Your task to perform on an android device: Search for pizza restaurants on Maps Image 0: 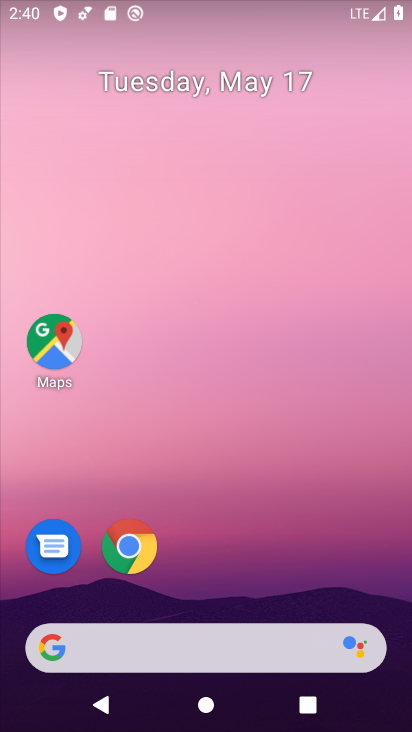
Step 0: press home button
Your task to perform on an android device: Search for pizza restaurants on Maps Image 1: 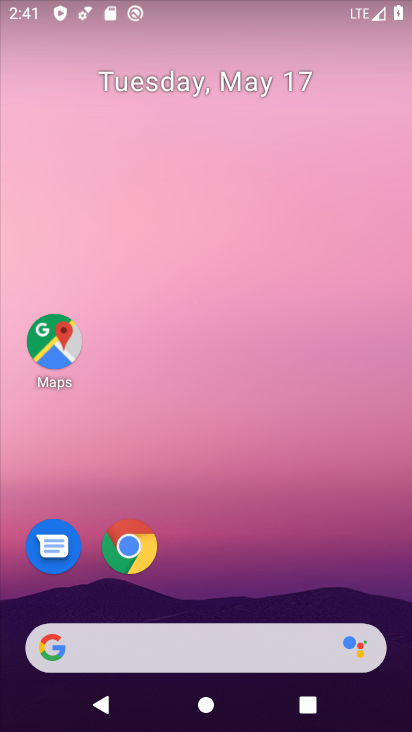
Step 1: click (139, 562)
Your task to perform on an android device: Search for pizza restaurants on Maps Image 2: 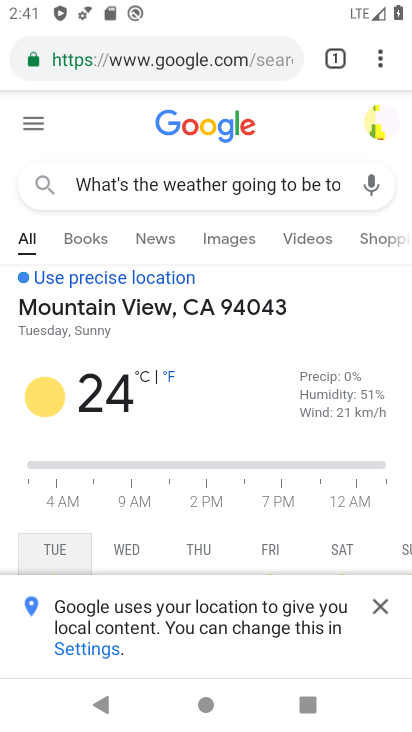
Step 2: click (205, 53)
Your task to perform on an android device: Search for pizza restaurants on Maps Image 3: 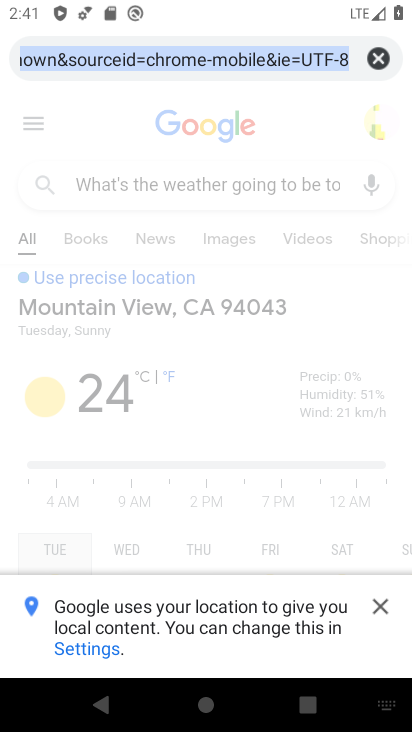
Step 3: click (374, 60)
Your task to perform on an android device: Search for pizza restaurants on Maps Image 4: 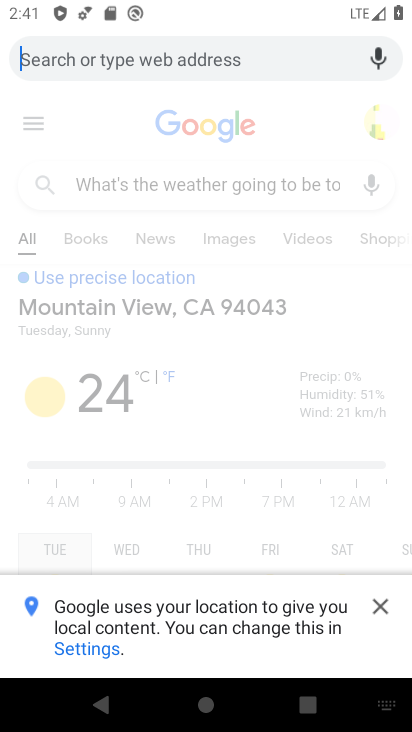
Step 4: type "pizza restaurants"
Your task to perform on an android device: Search for pizza restaurants on Maps Image 5: 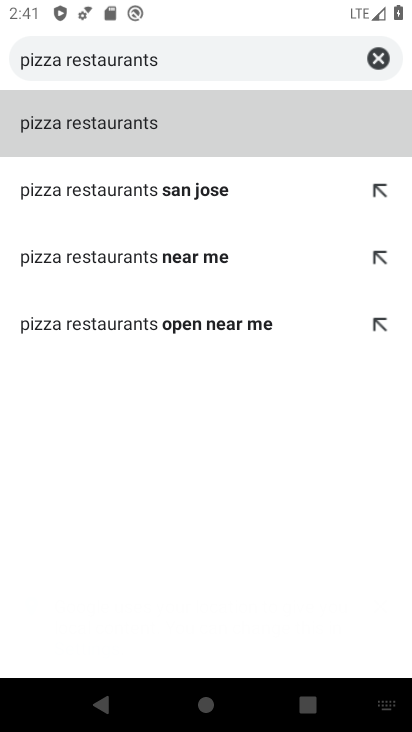
Step 5: click (270, 116)
Your task to perform on an android device: Search for pizza restaurants on Maps Image 6: 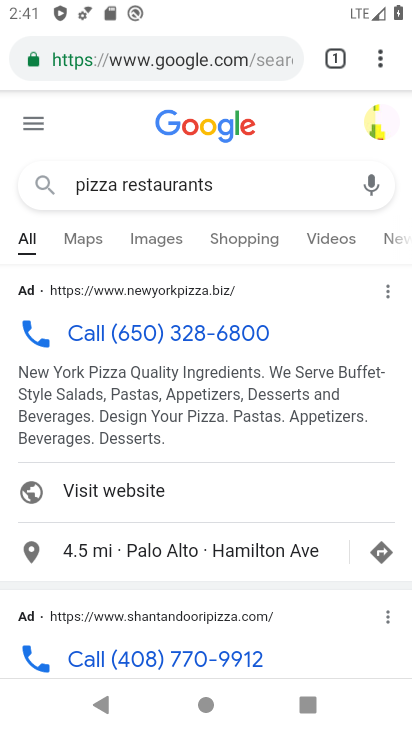
Step 6: press home button
Your task to perform on an android device: Search for pizza restaurants on Maps Image 7: 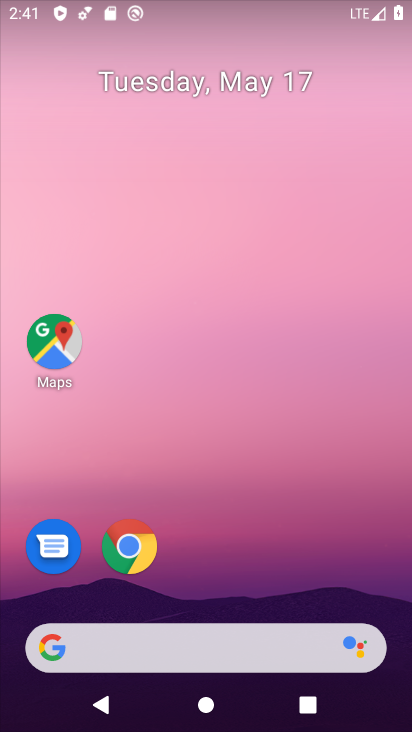
Step 7: click (45, 334)
Your task to perform on an android device: Search for pizza restaurants on Maps Image 8: 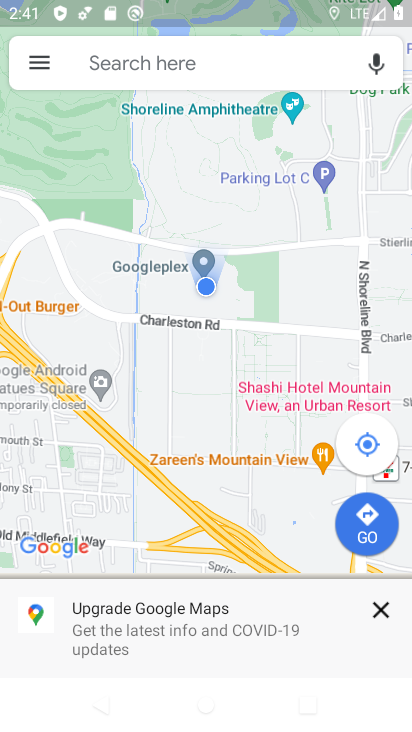
Step 8: click (119, 54)
Your task to perform on an android device: Search for pizza restaurants on Maps Image 9: 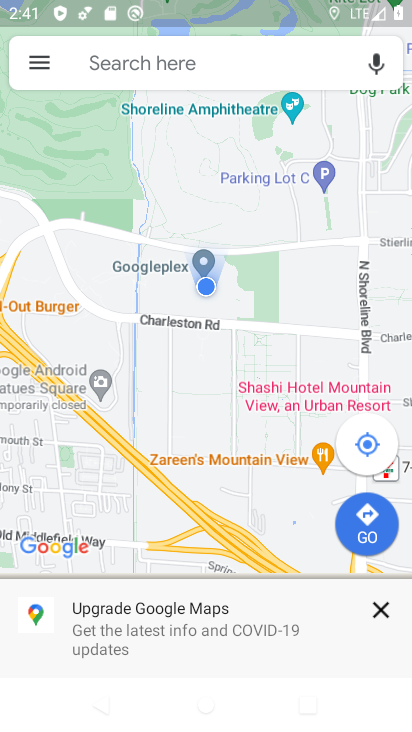
Step 9: click (119, 54)
Your task to perform on an android device: Search for pizza restaurants on Maps Image 10: 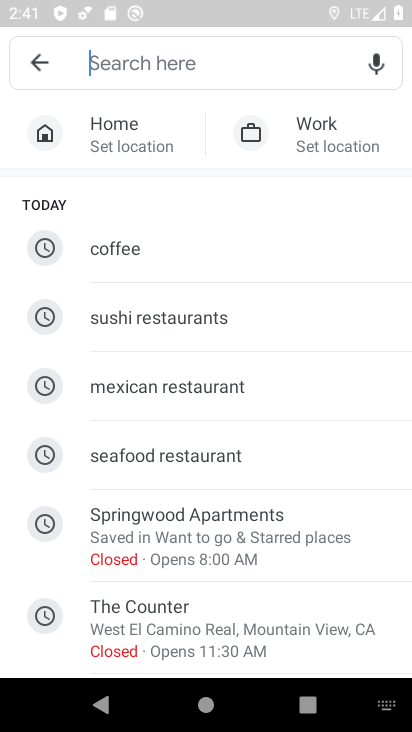
Step 10: type "pizza restaurants"
Your task to perform on an android device: Search for pizza restaurants on Maps Image 11: 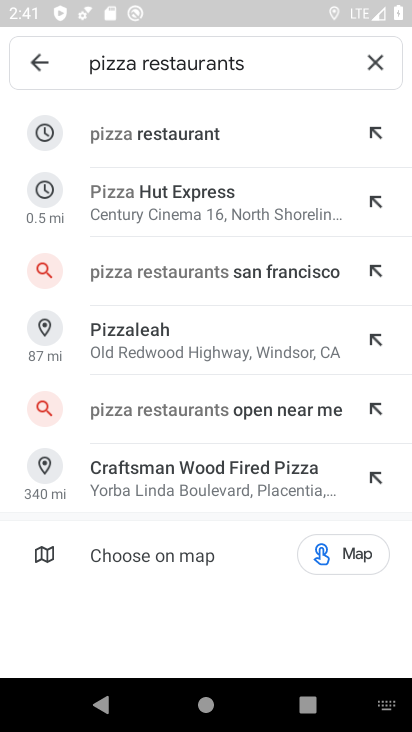
Step 11: click (177, 126)
Your task to perform on an android device: Search for pizza restaurants on Maps Image 12: 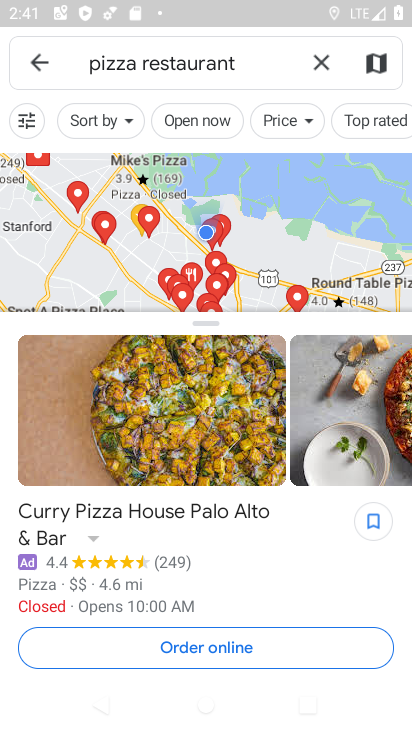
Step 12: task complete